Your task to perform on an android device: uninstall "Reddit" Image 0: 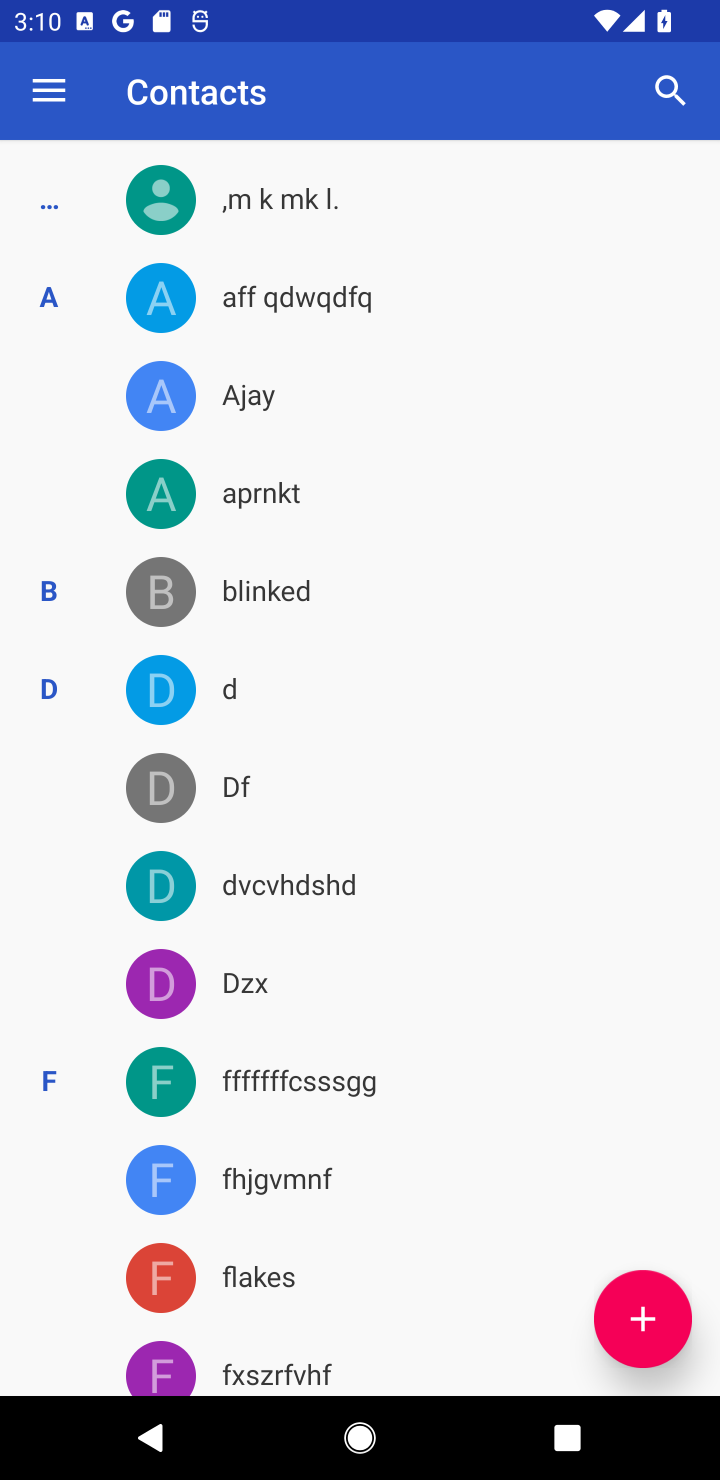
Step 0: press home button
Your task to perform on an android device: uninstall "Reddit" Image 1: 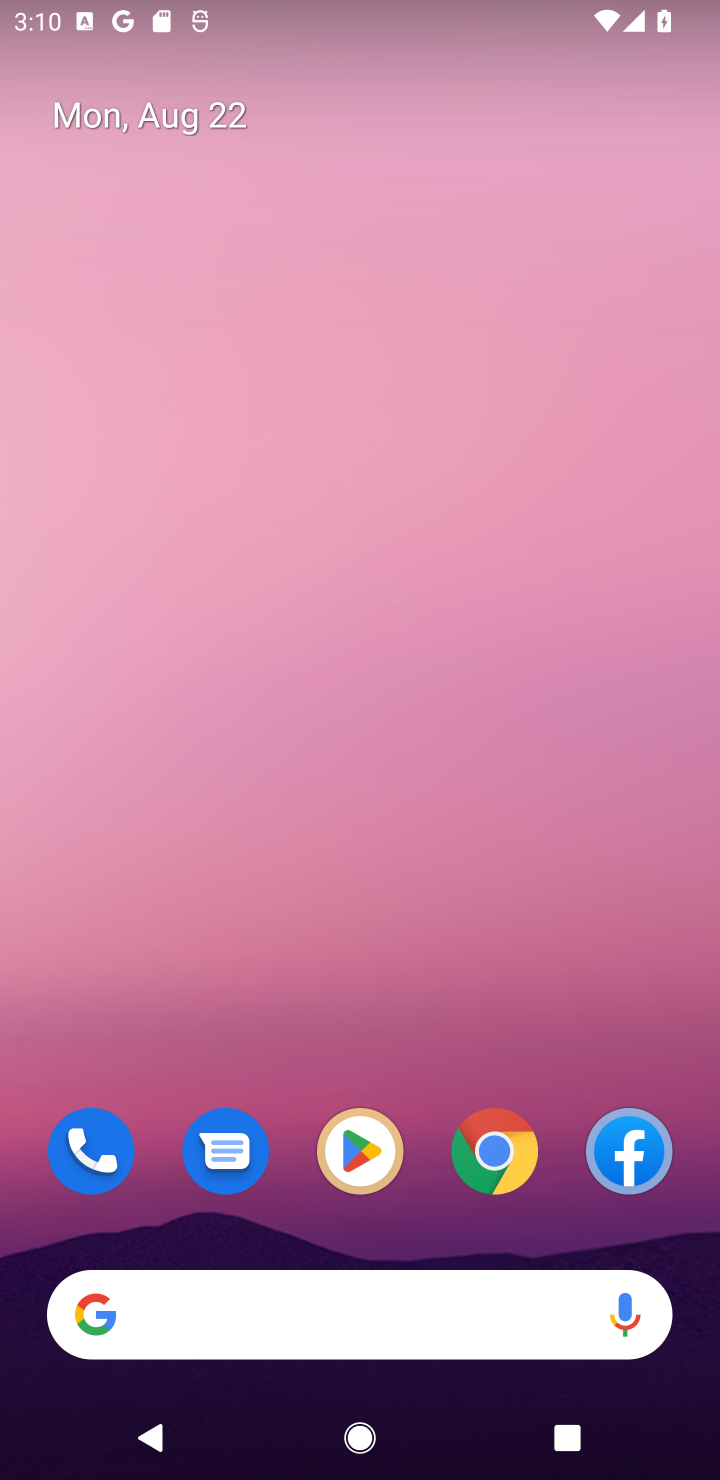
Step 1: click (374, 1139)
Your task to perform on an android device: uninstall "Reddit" Image 2: 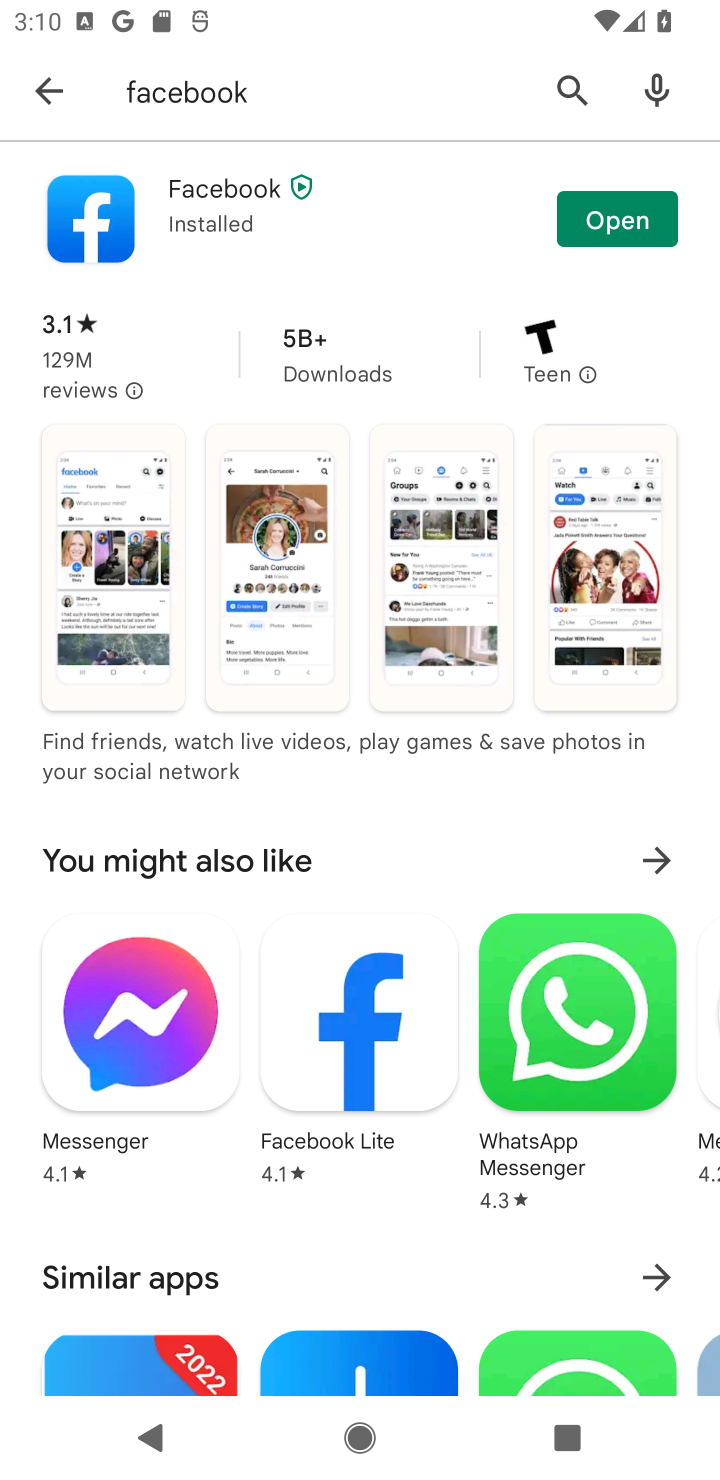
Step 2: click (575, 77)
Your task to perform on an android device: uninstall "Reddit" Image 3: 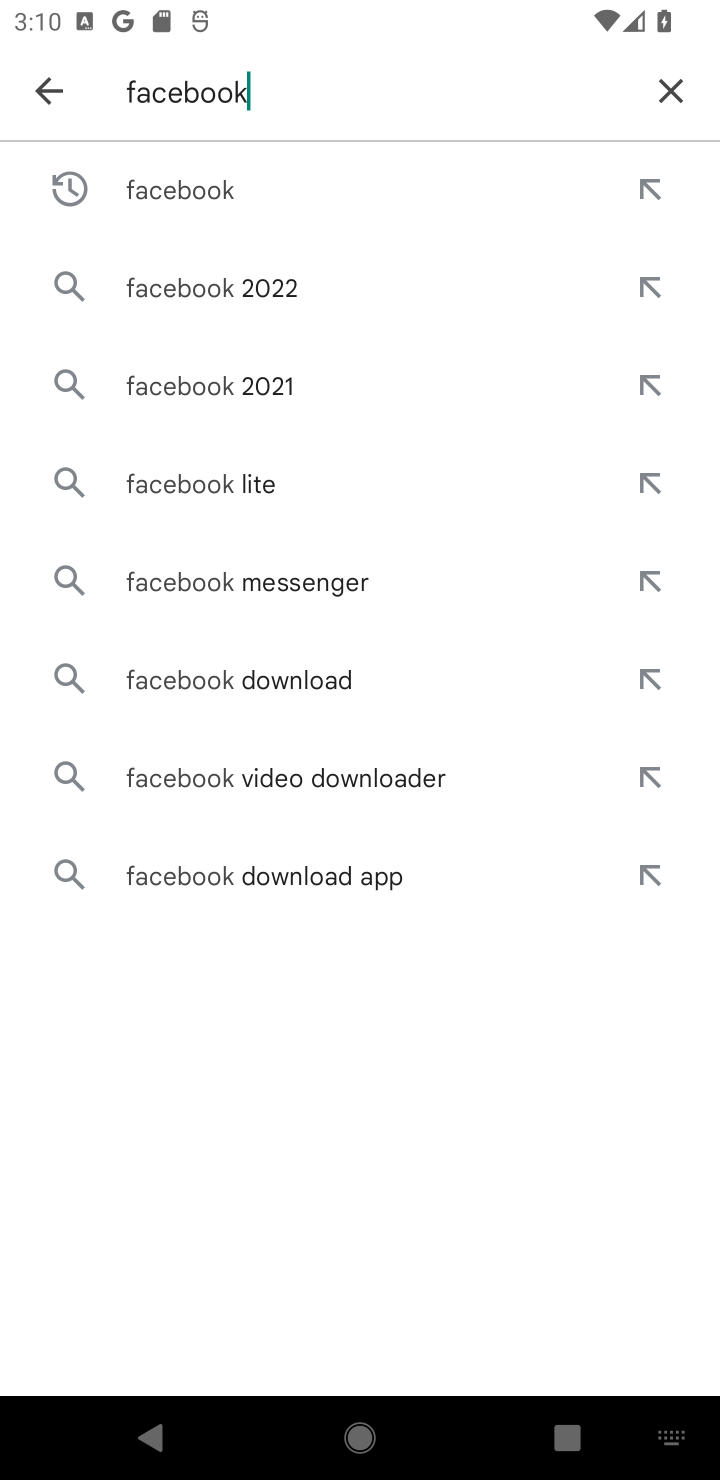
Step 3: click (671, 87)
Your task to perform on an android device: uninstall "Reddit" Image 4: 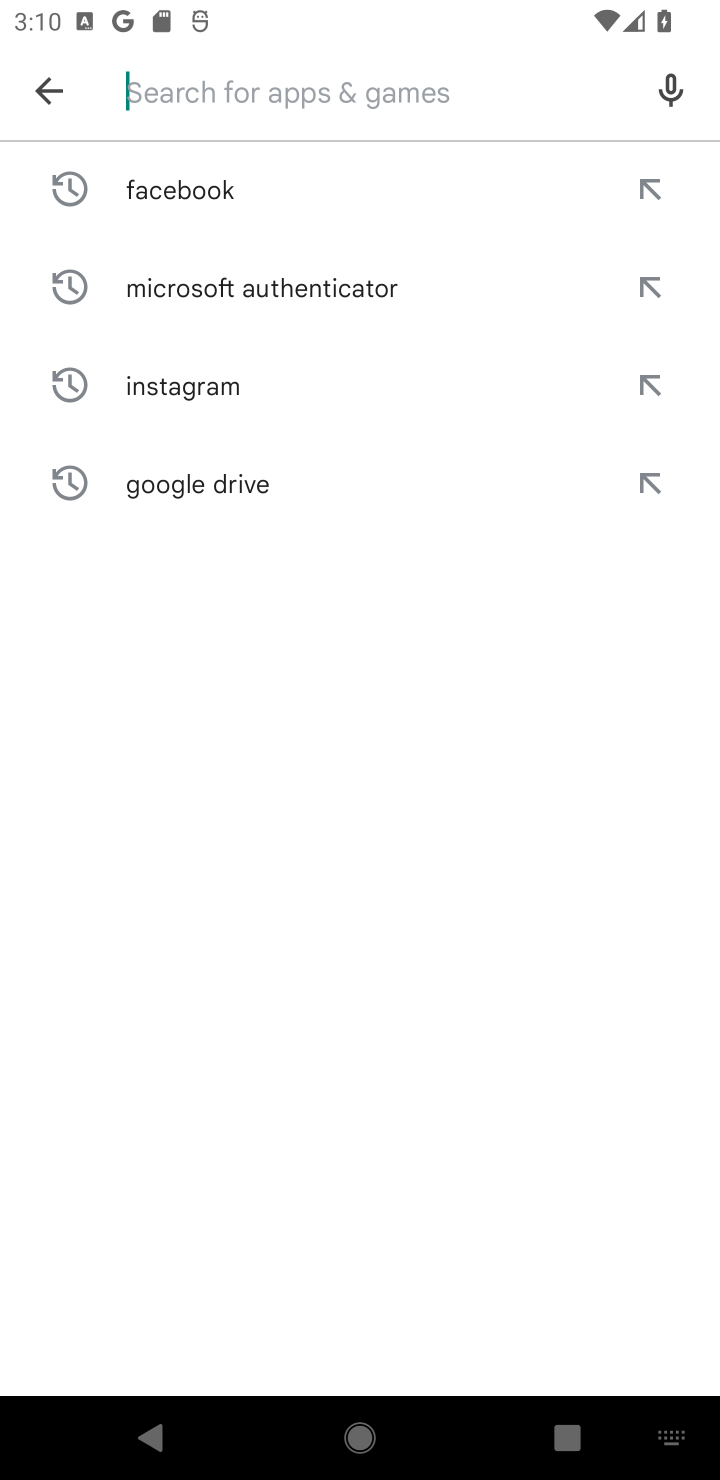
Step 4: type "Reddit"
Your task to perform on an android device: uninstall "Reddit" Image 5: 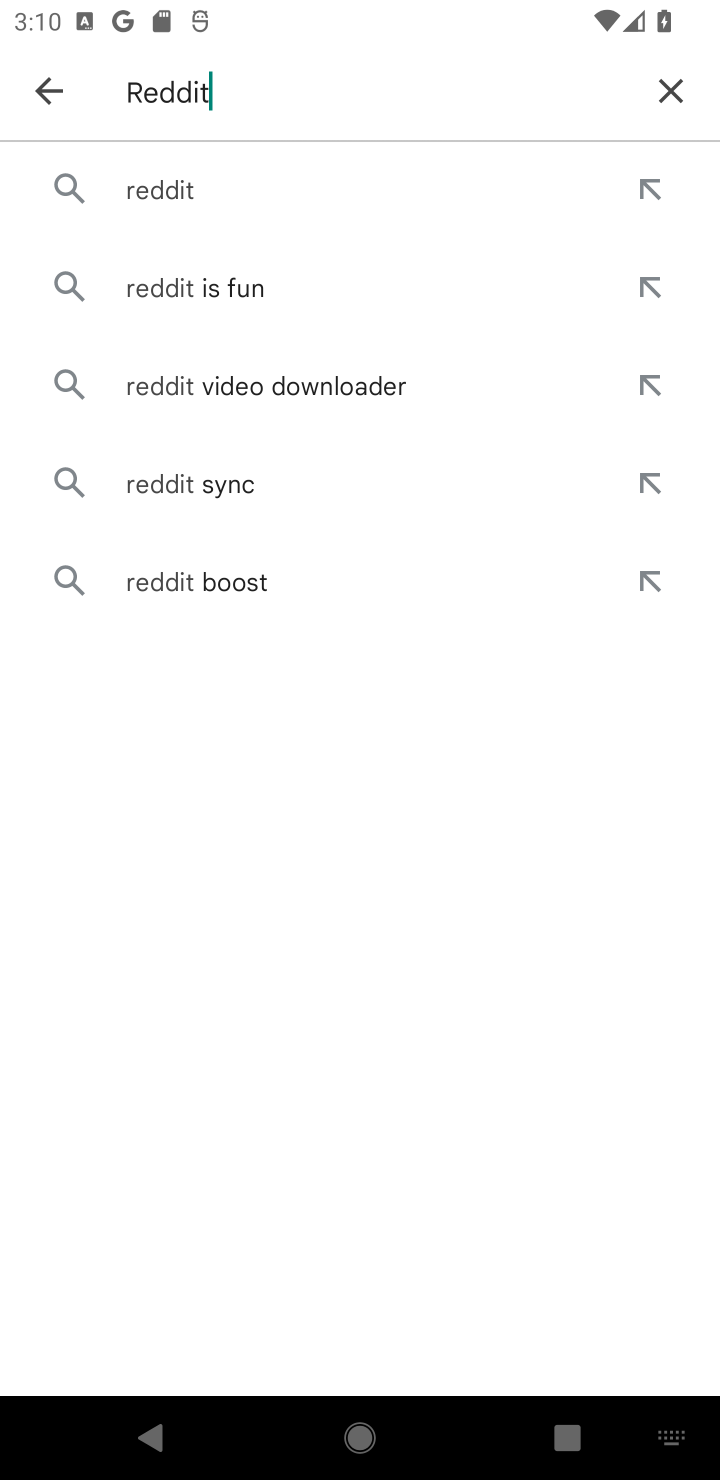
Step 5: click (169, 192)
Your task to perform on an android device: uninstall "Reddit" Image 6: 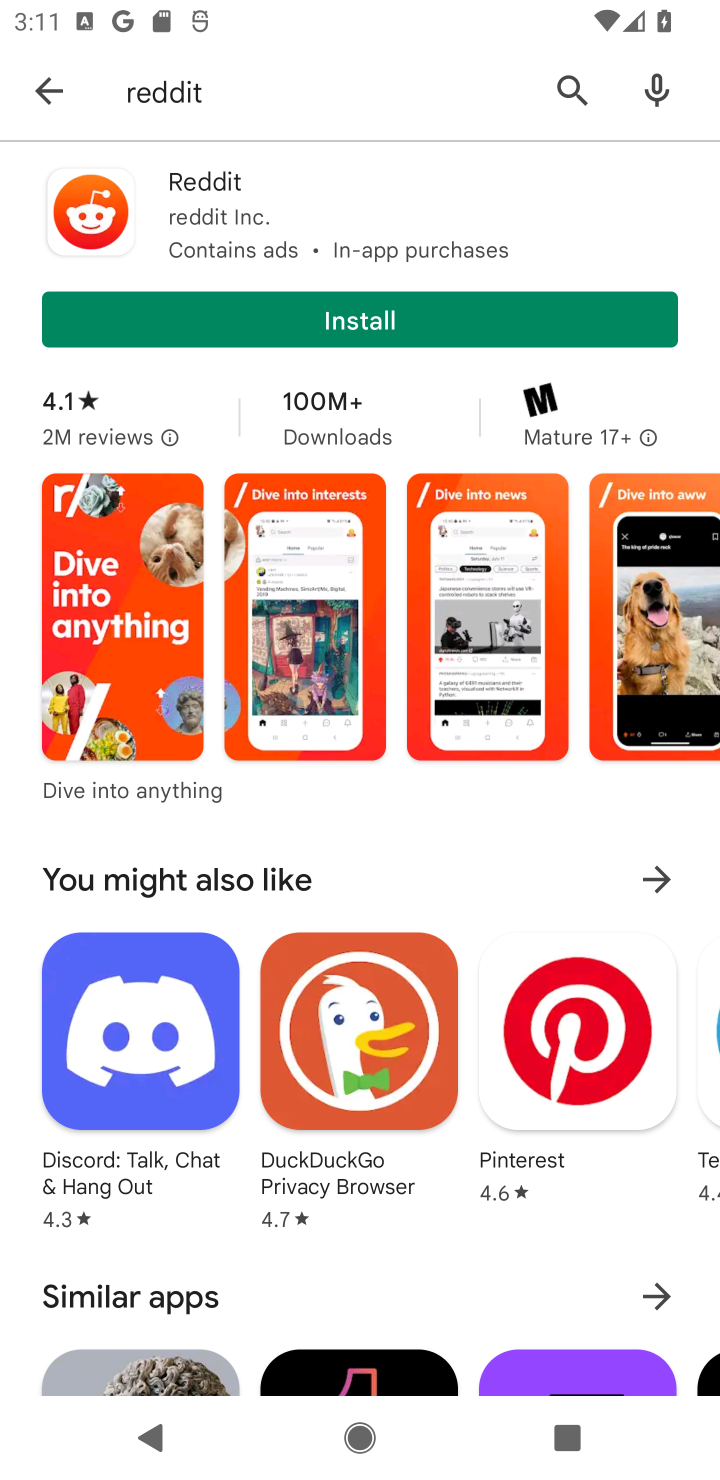
Step 6: task complete